Your task to perform on an android device: Toggle the flashlight Image 0: 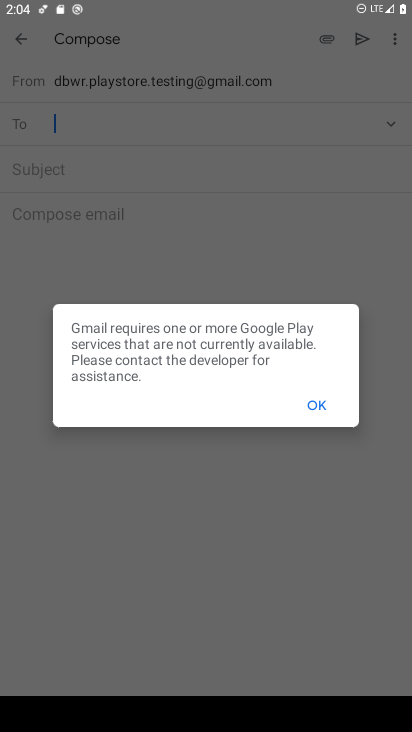
Step 0: press home button
Your task to perform on an android device: Toggle the flashlight Image 1: 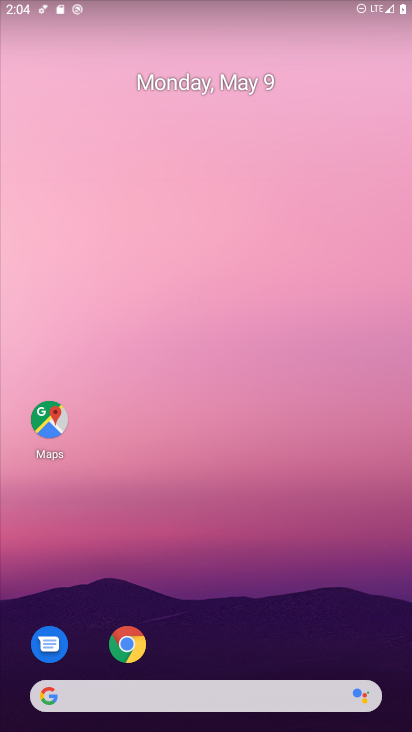
Step 1: task complete